Your task to perform on an android device: delete a single message in the gmail app Image 0: 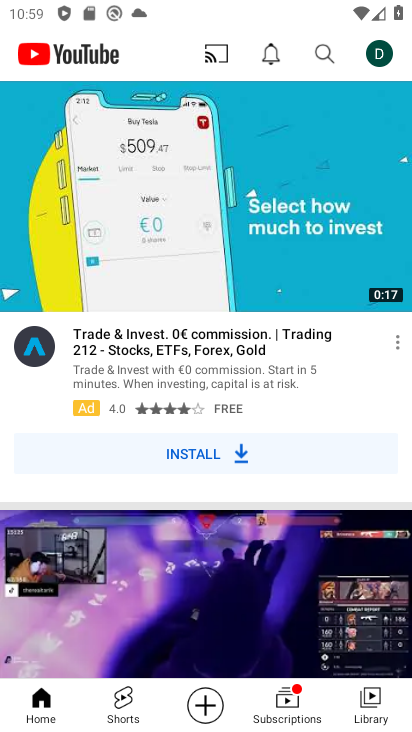
Step 0: press home button
Your task to perform on an android device: delete a single message in the gmail app Image 1: 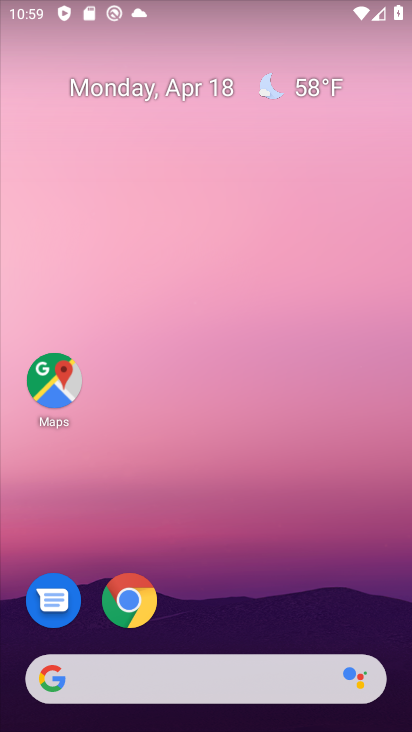
Step 1: drag from (233, 577) to (236, 7)
Your task to perform on an android device: delete a single message in the gmail app Image 2: 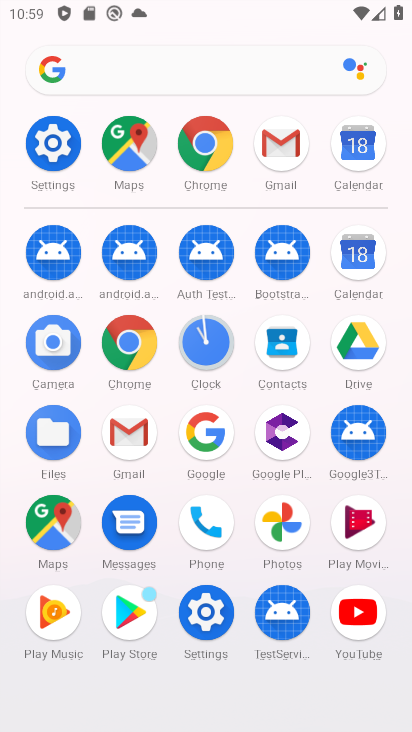
Step 2: click (121, 438)
Your task to perform on an android device: delete a single message in the gmail app Image 3: 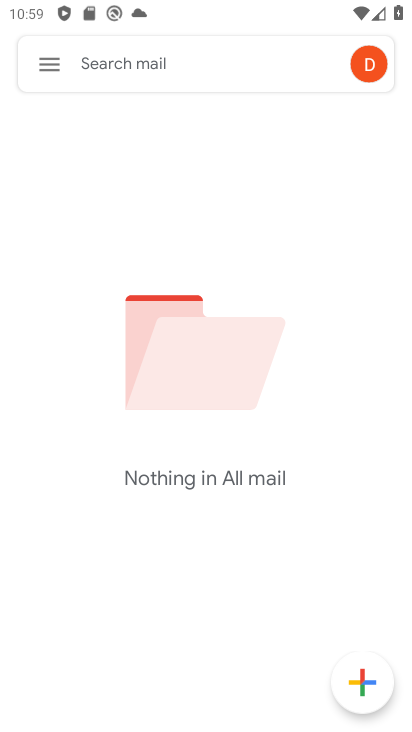
Step 3: click (50, 61)
Your task to perform on an android device: delete a single message in the gmail app Image 4: 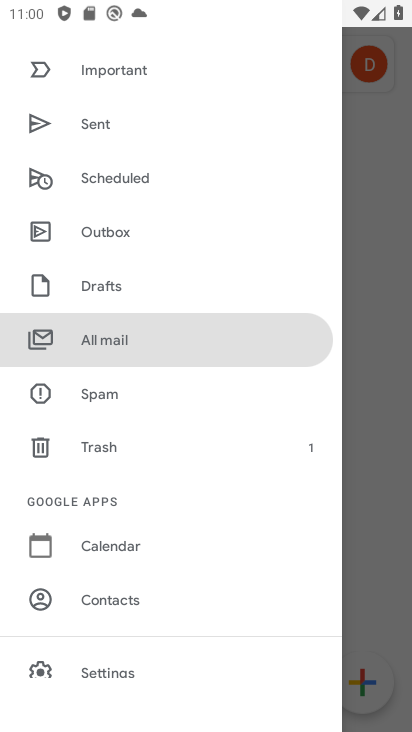
Step 4: click (114, 342)
Your task to perform on an android device: delete a single message in the gmail app Image 5: 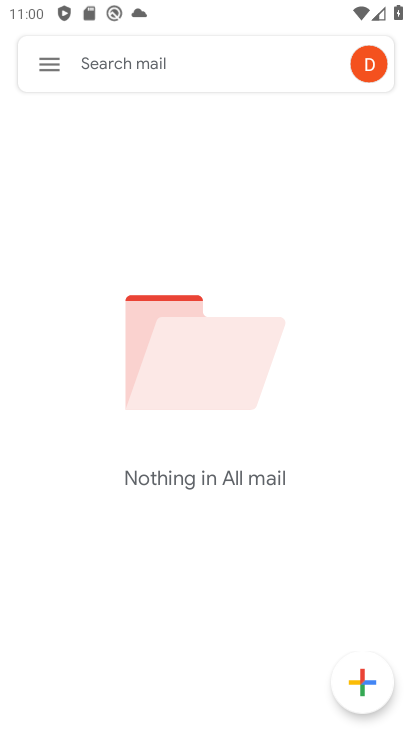
Step 5: task complete